Your task to perform on an android device: Search for custom wallets on Etsy. Image 0: 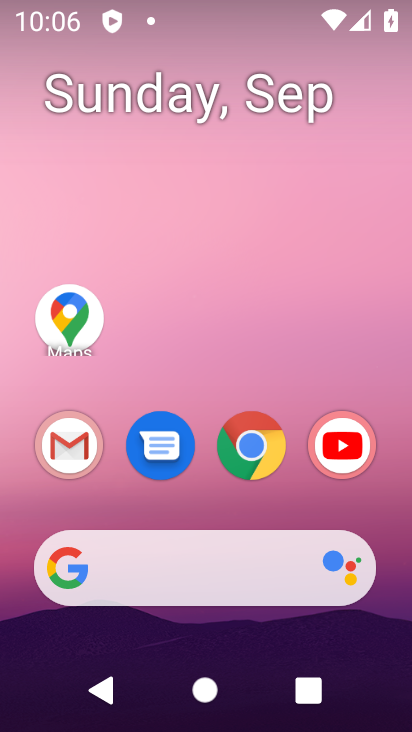
Step 0: drag from (24, 217) to (391, 358)
Your task to perform on an android device: Search for custom wallets on Etsy. Image 1: 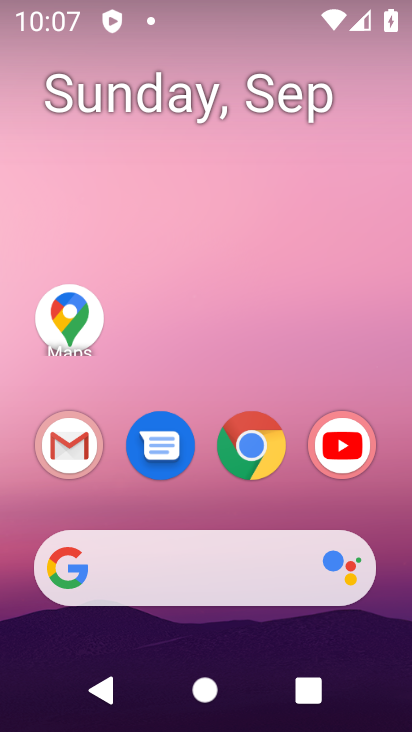
Step 1: click (93, 3)
Your task to perform on an android device: Search for custom wallets on Etsy. Image 2: 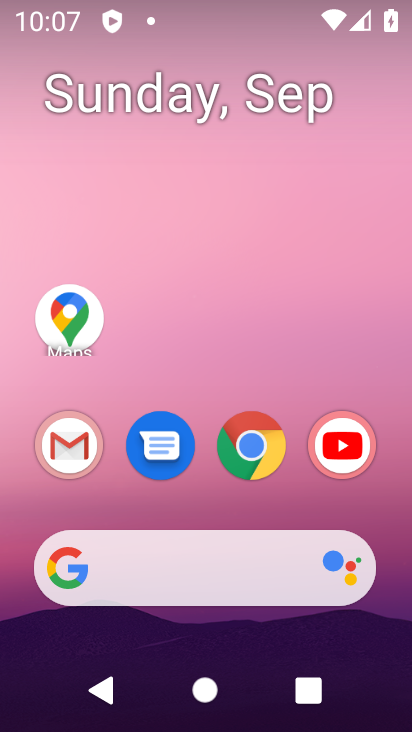
Step 2: drag from (164, 499) to (58, 14)
Your task to perform on an android device: Search for custom wallets on Etsy. Image 3: 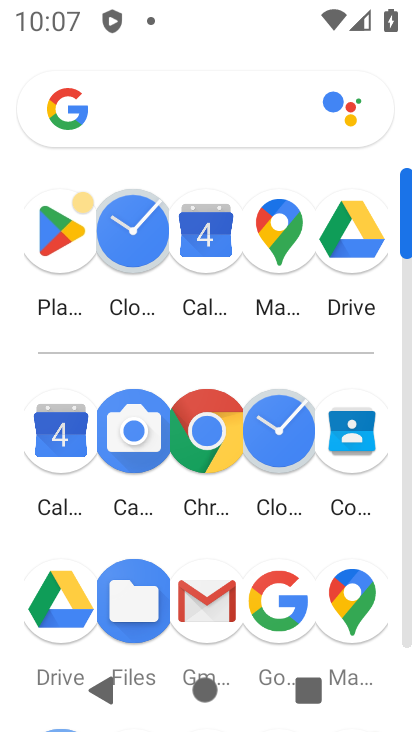
Step 3: click (191, 428)
Your task to perform on an android device: Search for custom wallets on Etsy. Image 4: 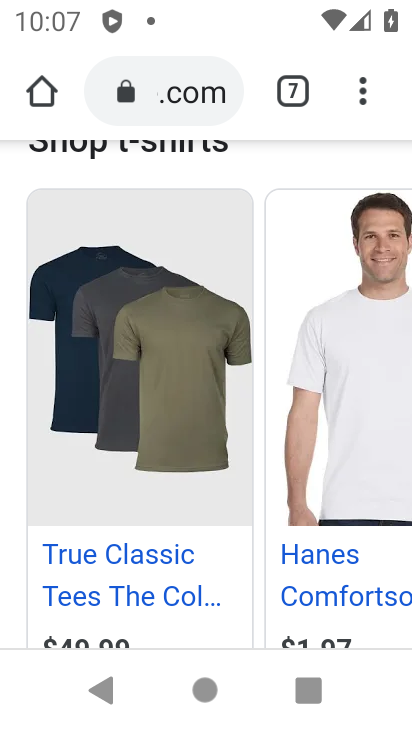
Step 4: click (152, 104)
Your task to perform on an android device: Search for custom wallets on Etsy. Image 5: 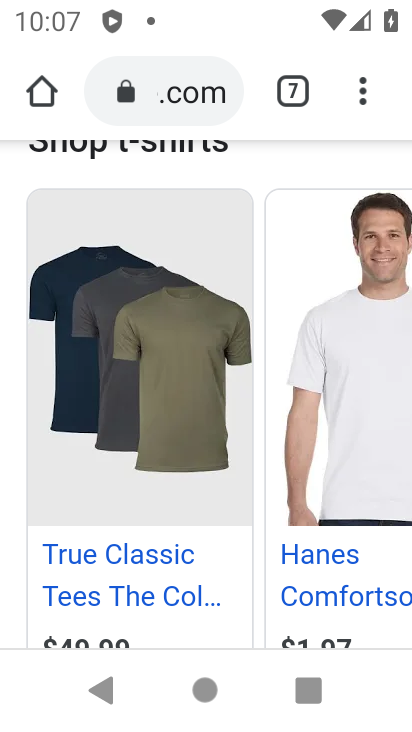
Step 5: click (145, 101)
Your task to perform on an android device: Search for custom wallets on Etsy. Image 6: 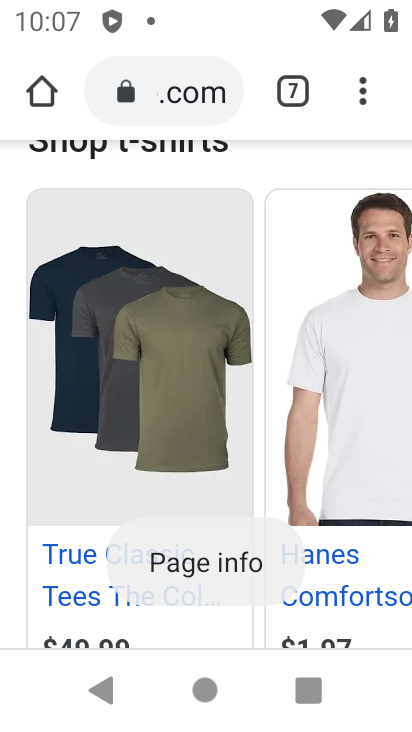
Step 6: click (167, 86)
Your task to perform on an android device: Search for custom wallets on Etsy. Image 7: 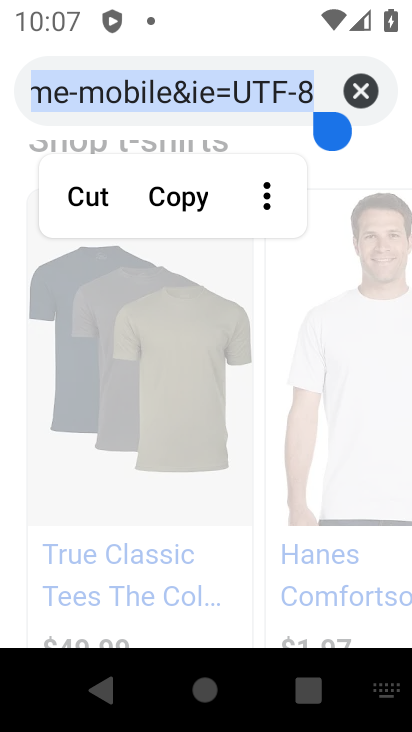
Step 7: click (367, 84)
Your task to perform on an android device: Search for custom wallets on Etsy. Image 8: 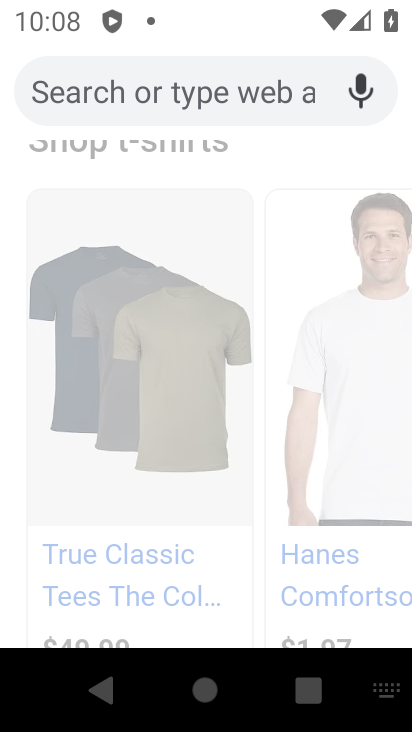
Step 8: press enter
Your task to perform on an android device: Search for custom wallets on Etsy. Image 9: 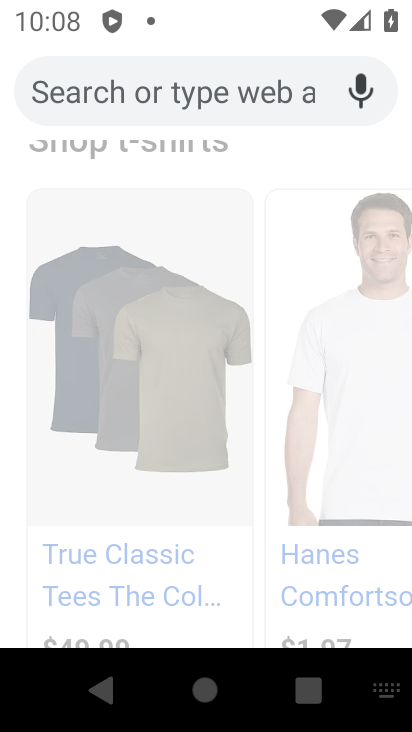
Step 9: type "Etsy"
Your task to perform on an android device: Search for custom wallets on Etsy. Image 10: 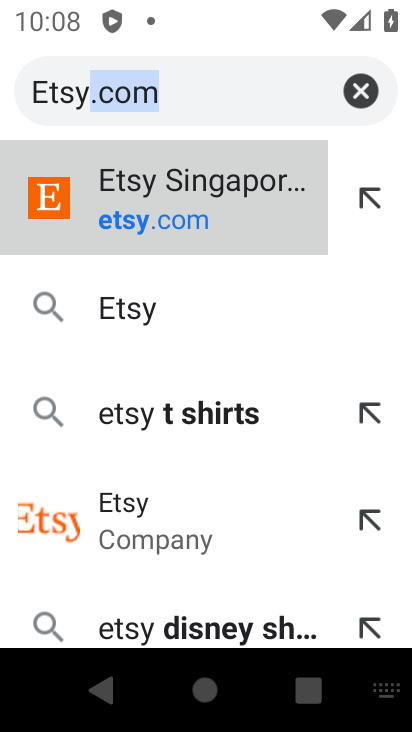
Step 10: click (153, 214)
Your task to perform on an android device: Search for custom wallets on Etsy. Image 11: 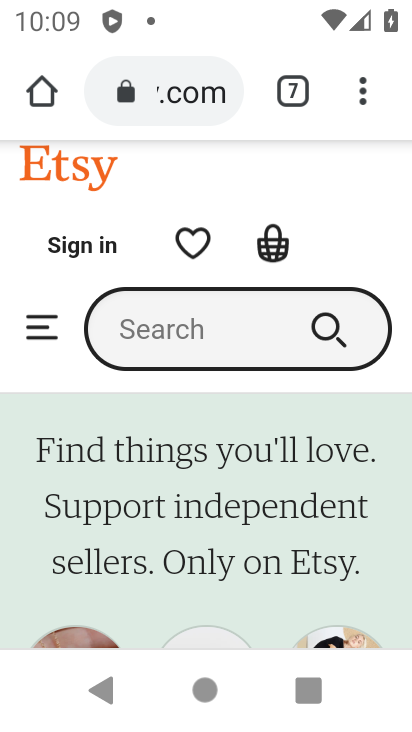
Step 11: click (223, 290)
Your task to perform on an android device: Search for custom wallets on Etsy. Image 12: 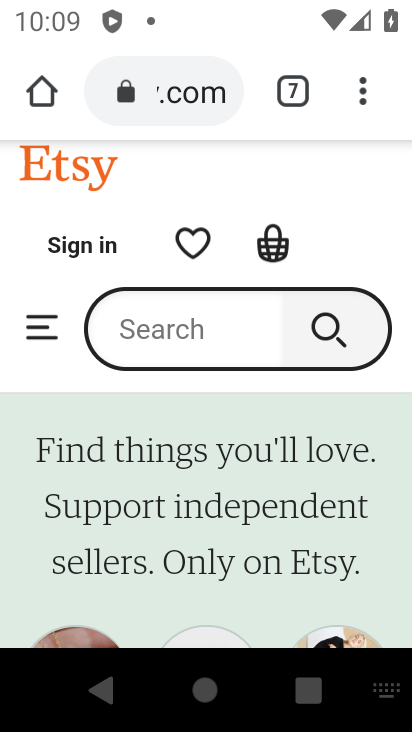
Step 12: type "custom wallets "
Your task to perform on an android device: Search for custom wallets on Etsy. Image 13: 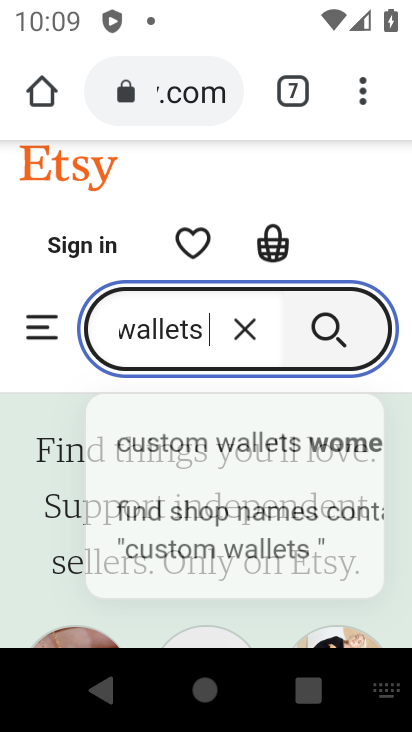
Step 13: press enter
Your task to perform on an android device: Search for custom wallets on Etsy. Image 14: 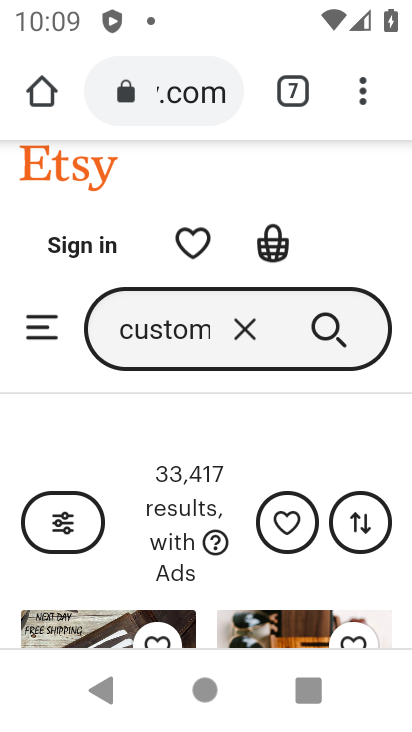
Step 14: task complete